Your task to perform on an android device: Search for Italian restaurants on Maps Image 0: 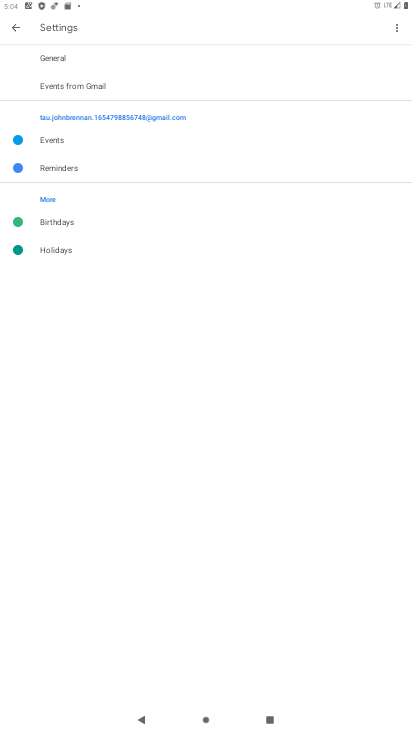
Step 0: press home button
Your task to perform on an android device: Search for Italian restaurants on Maps Image 1: 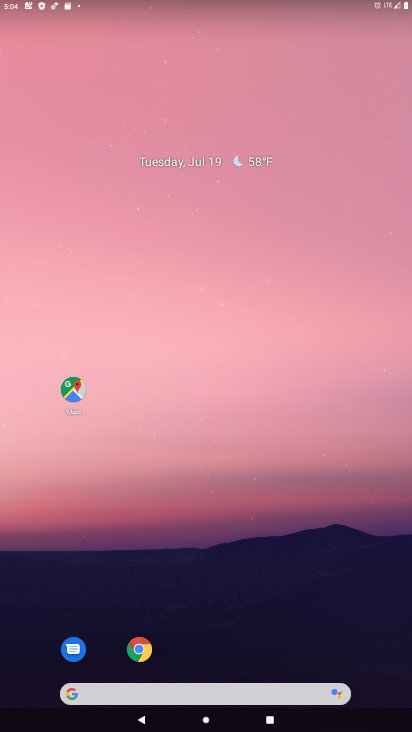
Step 1: click (72, 393)
Your task to perform on an android device: Search for Italian restaurants on Maps Image 2: 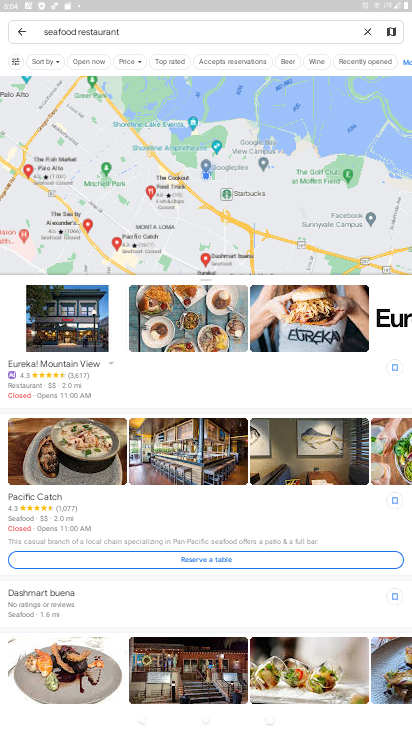
Step 2: click (15, 37)
Your task to perform on an android device: Search for Italian restaurants on Maps Image 3: 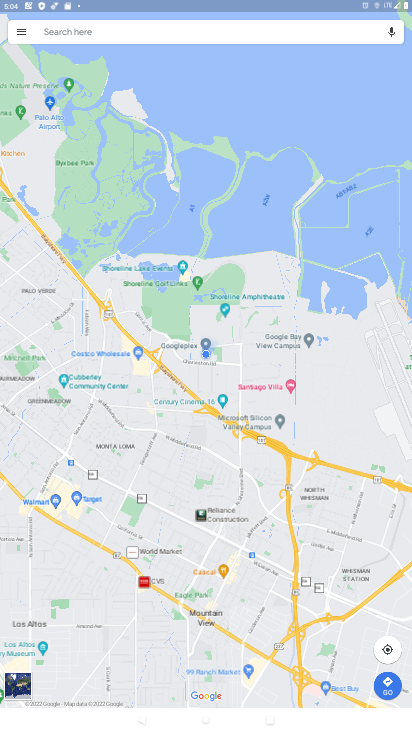
Step 3: click (70, 32)
Your task to perform on an android device: Search for Italian restaurants on Maps Image 4: 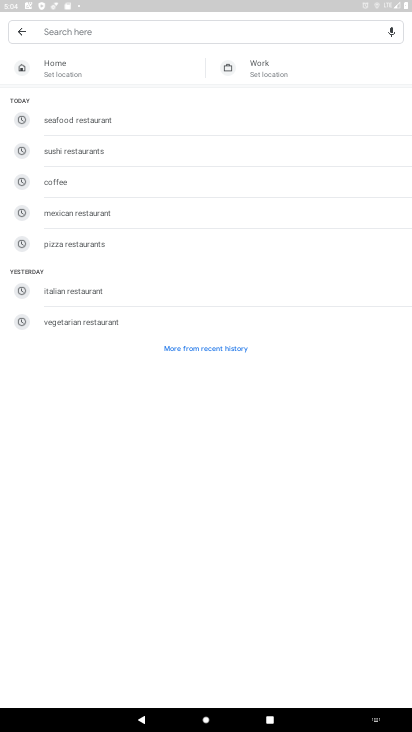
Step 4: click (84, 283)
Your task to perform on an android device: Search for Italian restaurants on Maps Image 5: 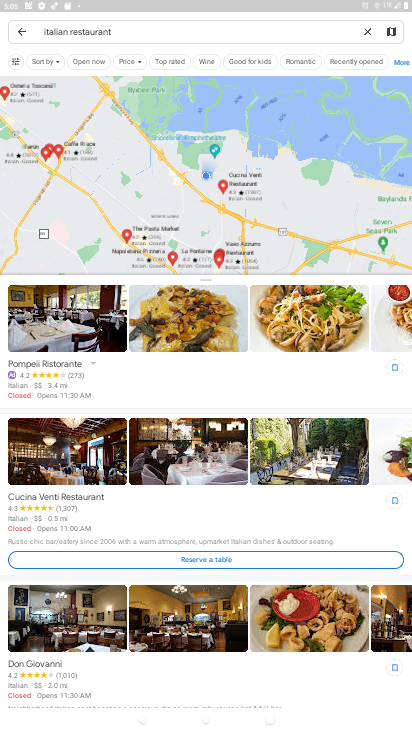
Step 5: task complete